Your task to perform on an android device: change the clock display to digital Image 0: 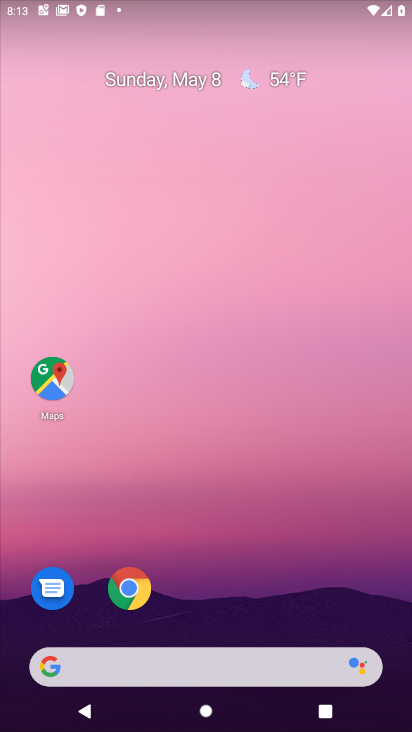
Step 0: drag from (228, 522) to (250, 97)
Your task to perform on an android device: change the clock display to digital Image 1: 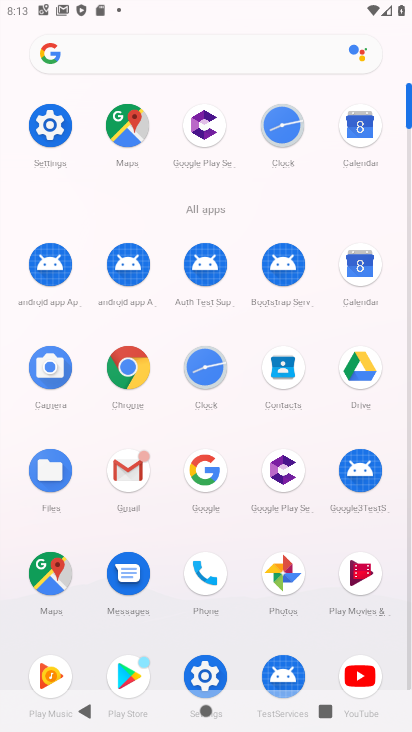
Step 1: click (275, 157)
Your task to perform on an android device: change the clock display to digital Image 2: 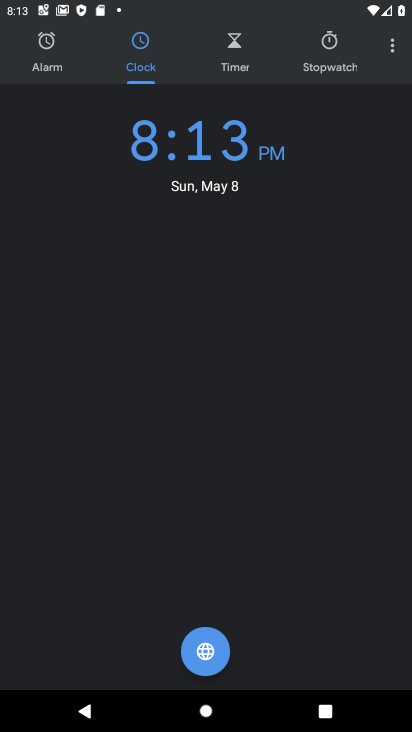
Step 2: click (392, 45)
Your task to perform on an android device: change the clock display to digital Image 3: 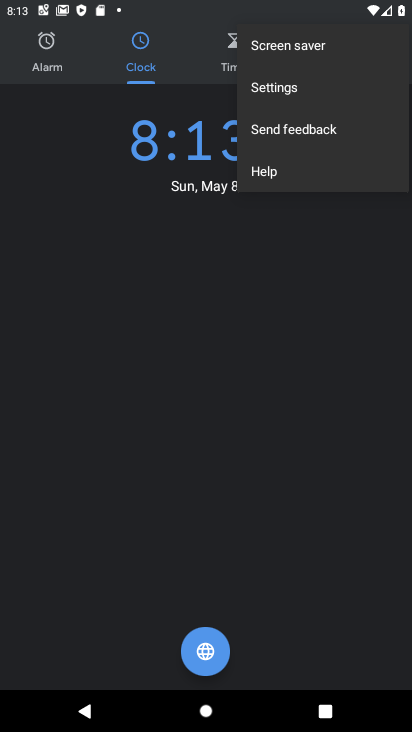
Step 3: click (265, 98)
Your task to perform on an android device: change the clock display to digital Image 4: 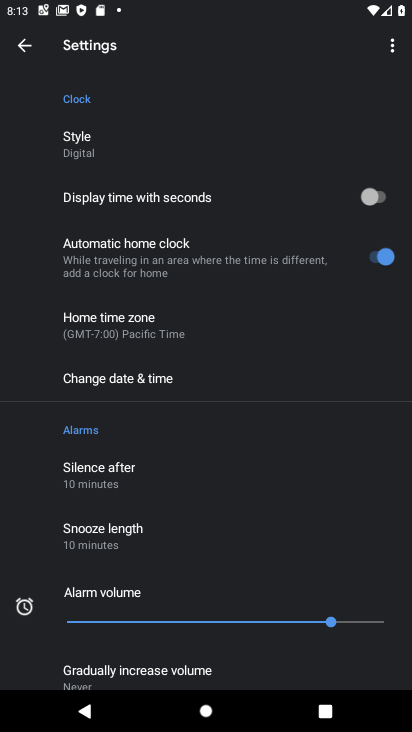
Step 4: click (190, 130)
Your task to perform on an android device: change the clock display to digital Image 5: 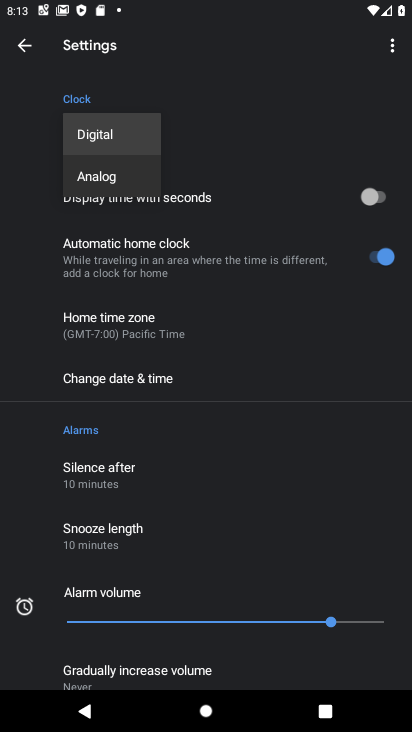
Step 5: task complete